Your task to perform on an android device: Go to network settings Image 0: 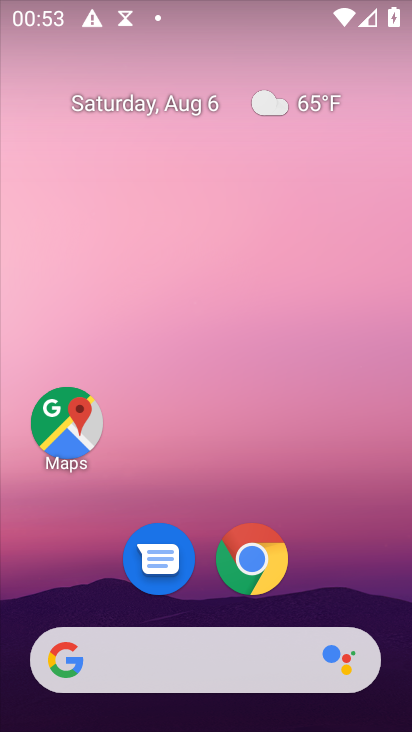
Step 0: drag from (369, 614) to (390, 148)
Your task to perform on an android device: Go to network settings Image 1: 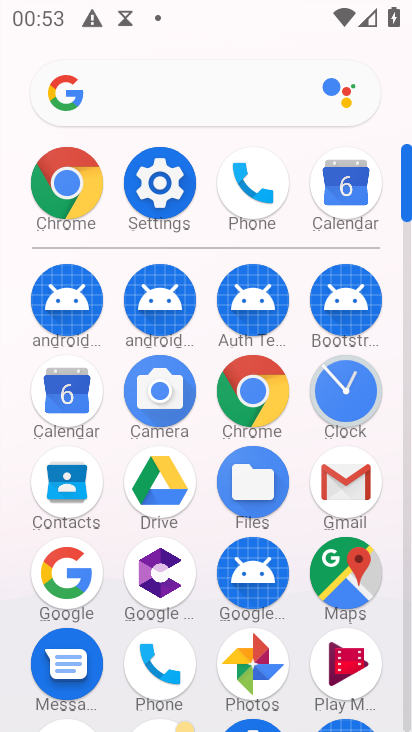
Step 1: click (185, 179)
Your task to perform on an android device: Go to network settings Image 2: 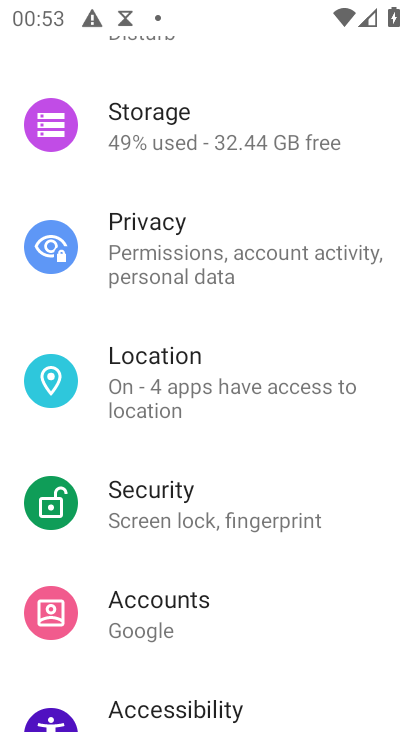
Step 2: drag from (213, 193) to (406, 720)
Your task to perform on an android device: Go to network settings Image 3: 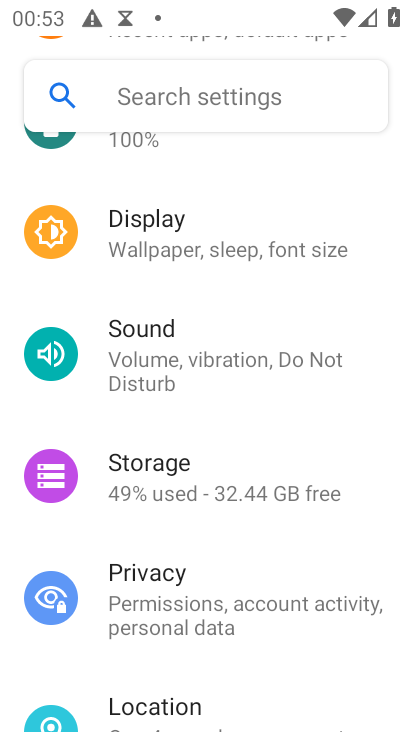
Step 3: drag from (241, 189) to (311, 658)
Your task to perform on an android device: Go to network settings Image 4: 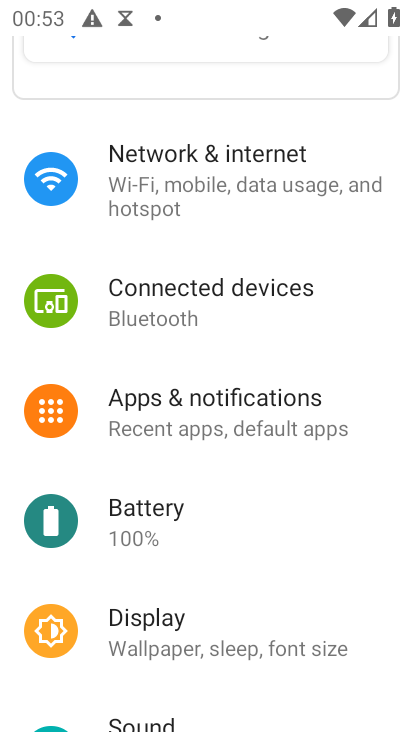
Step 4: click (172, 162)
Your task to perform on an android device: Go to network settings Image 5: 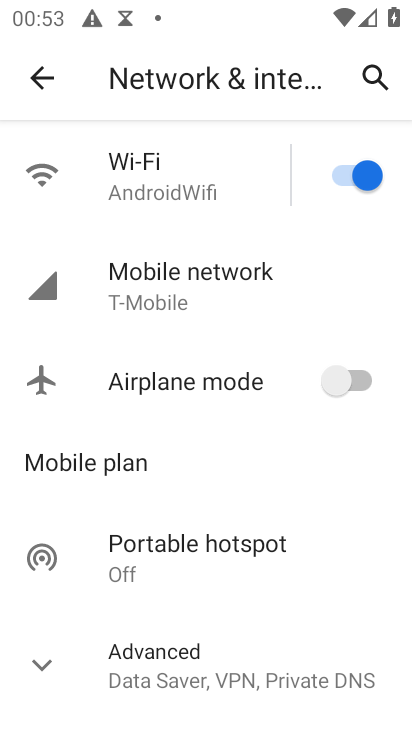
Step 5: task complete